Your task to perform on an android device: see sites visited before in the chrome app Image 0: 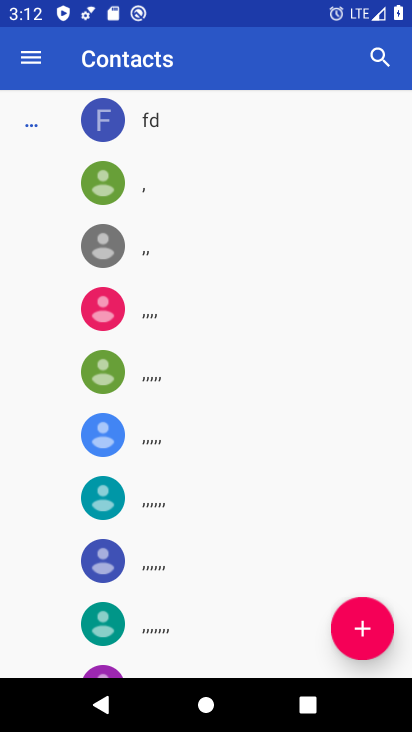
Step 0: press back button
Your task to perform on an android device: see sites visited before in the chrome app Image 1: 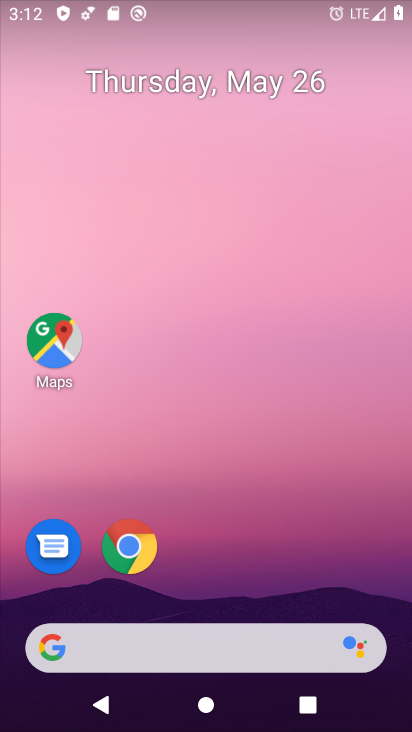
Step 1: click (108, 544)
Your task to perform on an android device: see sites visited before in the chrome app Image 2: 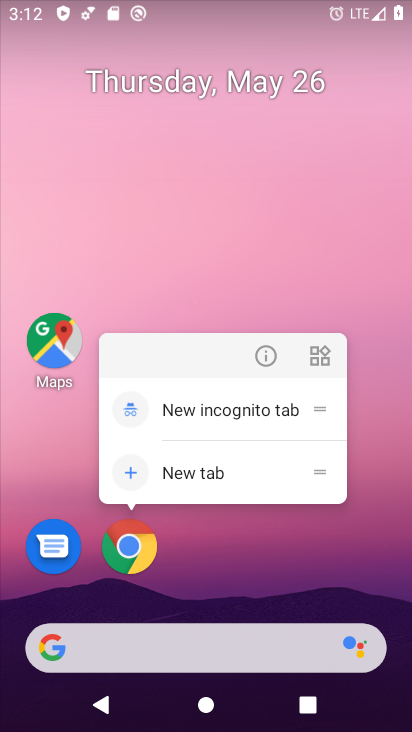
Step 2: click (123, 540)
Your task to perform on an android device: see sites visited before in the chrome app Image 3: 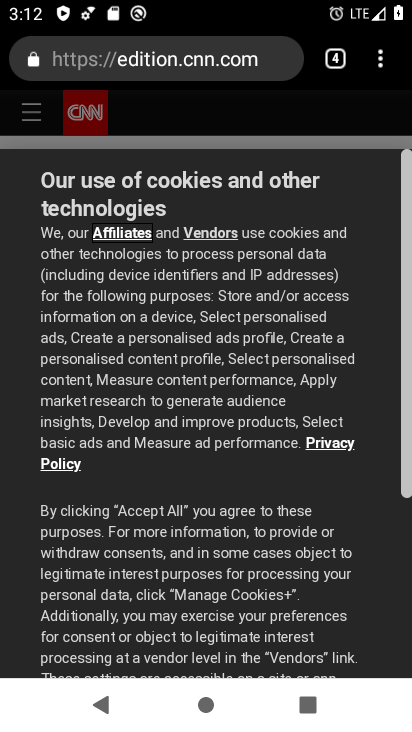
Step 3: task complete